Your task to perform on an android device: stop showing notifications on the lock screen Image 0: 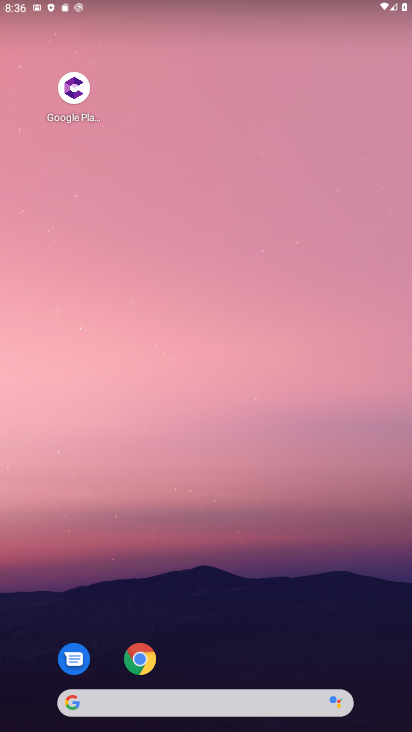
Step 0: drag from (222, 687) to (177, 23)
Your task to perform on an android device: stop showing notifications on the lock screen Image 1: 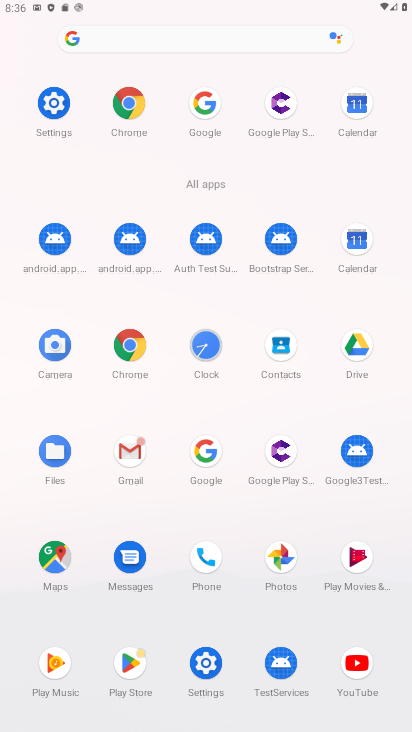
Step 1: click (54, 104)
Your task to perform on an android device: stop showing notifications on the lock screen Image 2: 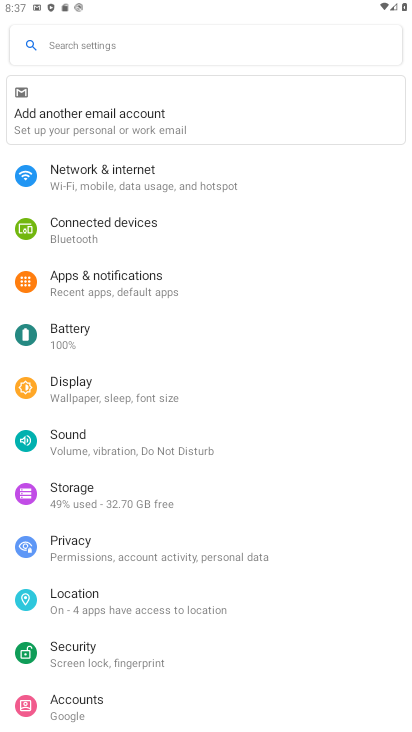
Step 2: click (96, 279)
Your task to perform on an android device: stop showing notifications on the lock screen Image 3: 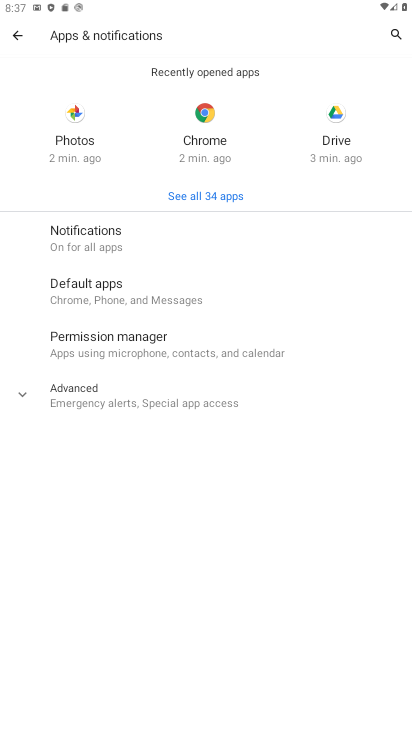
Step 3: click (97, 229)
Your task to perform on an android device: stop showing notifications on the lock screen Image 4: 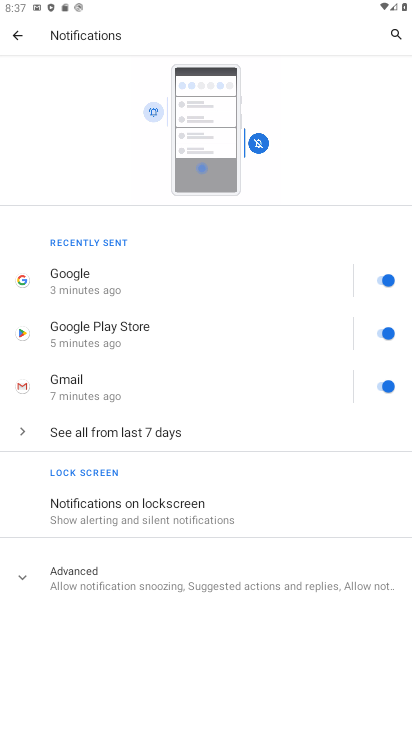
Step 4: click (114, 508)
Your task to perform on an android device: stop showing notifications on the lock screen Image 5: 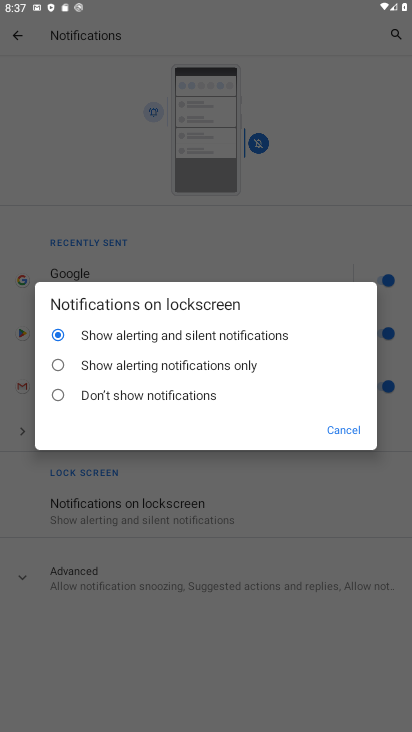
Step 5: click (56, 393)
Your task to perform on an android device: stop showing notifications on the lock screen Image 6: 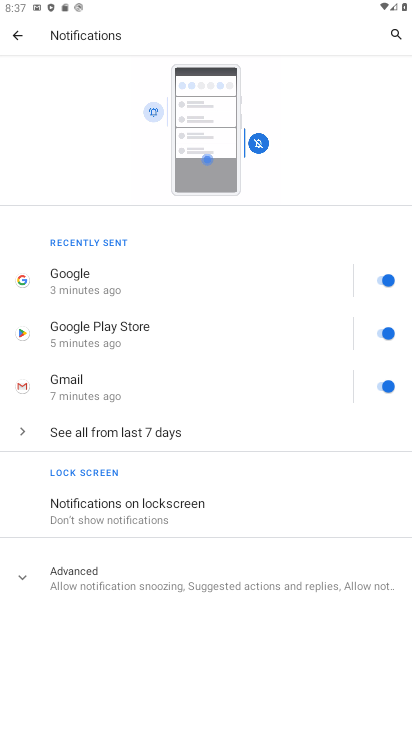
Step 6: task complete